Your task to perform on an android device: Open notification settings Image 0: 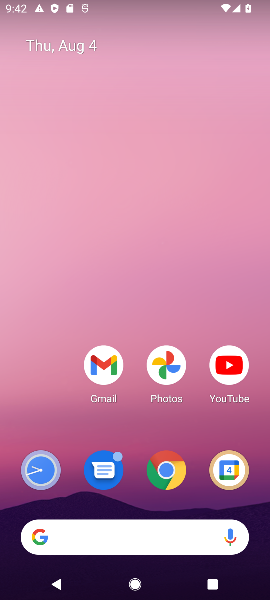
Step 0: drag from (149, 439) to (140, 65)
Your task to perform on an android device: Open notification settings Image 1: 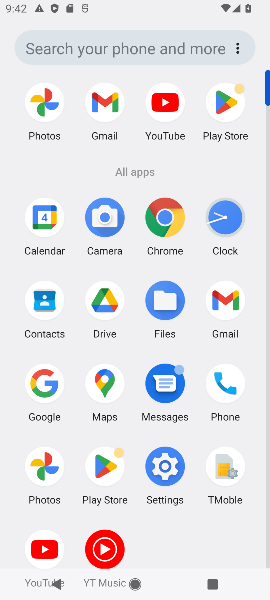
Step 1: click (152, 456)
Your task to perform on an android device: Open notification settings Image 2: 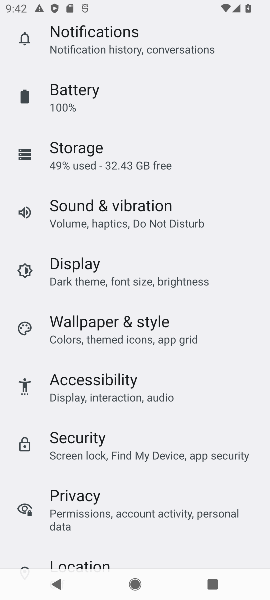
Step 2: click (132, 52)
Your task to perform on an android device: Open notification settings Image 3: 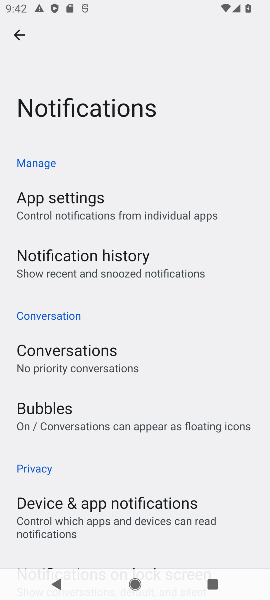
Step 3: task complete